Your task to perform on an android device: Open my contact list Image 0: 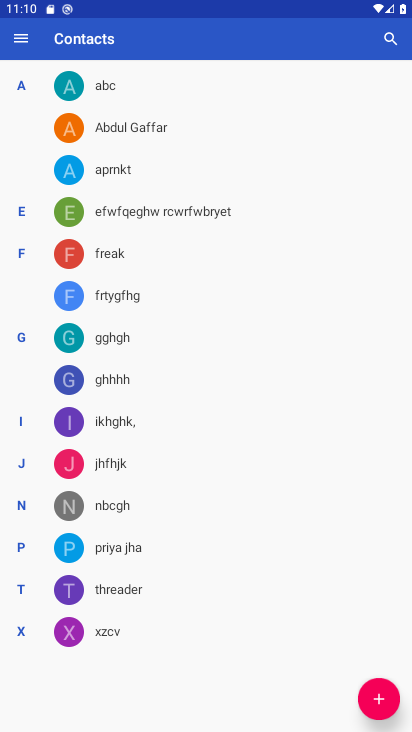
Step 0: click (363, 700)
Your task to perform on an android device: Open my contact list Image 1: 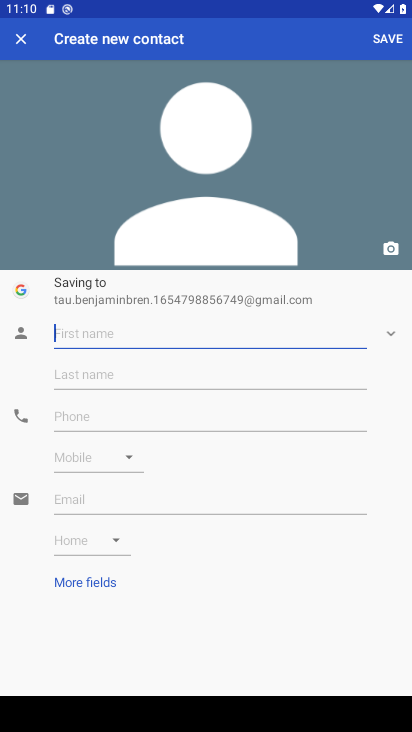
Step 1: task complete